Your task to perform on an android device: turn off priority inbox in the gmail app Image 0: 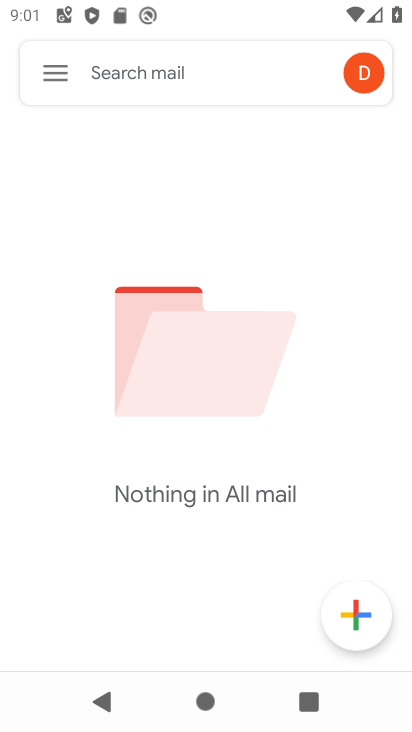
Step 0: click (55, 80)
Your task to perform on an android device: turn off priority inbox in the gmail app Image 1: 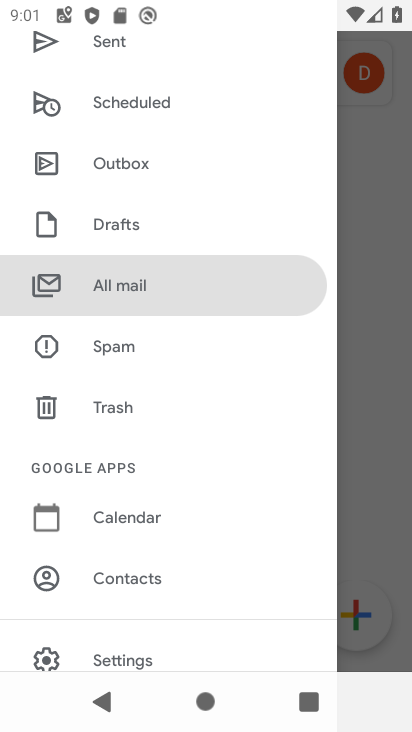
Step 1: click (164, 651)
Your task to perform on an android device: turn off priority inbox in the gmail app Image 2: 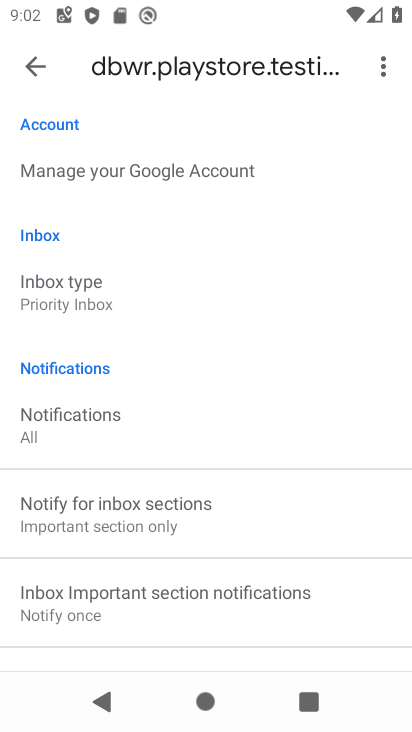
Step 2: click (99, 294)
Your task to perform on an android device: turn off priority inbox in the gmail app Image 3: 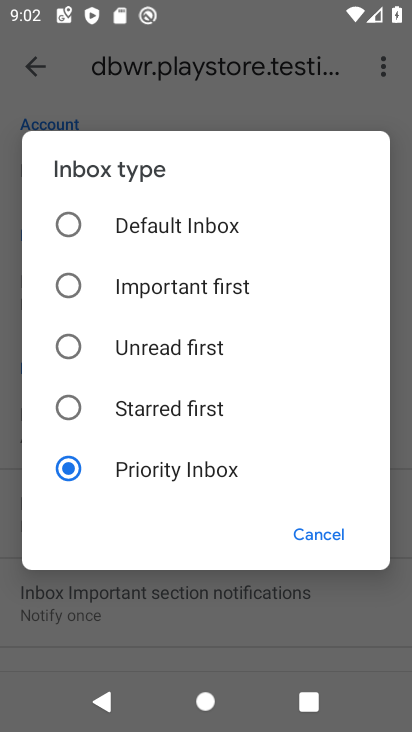
Step 3: click (62, 215)
Your task to perform on an android device: turn off priority inbox in the gmail app Image 4: 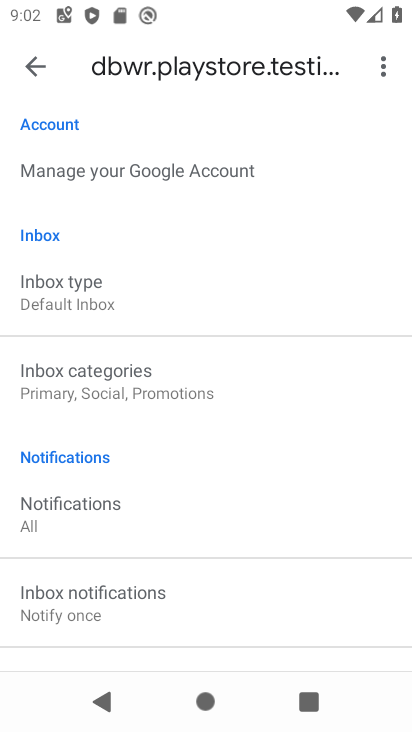
Step 4: task complete